Your task to perform on an android device: Open Google Chrome and open the bookmarks view Image 0: 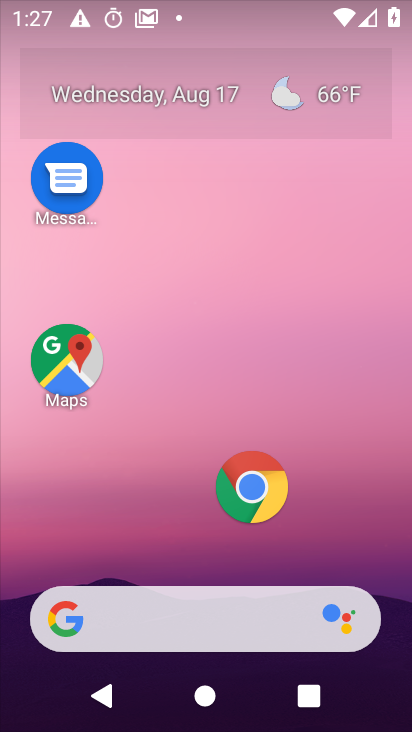
Step 0: press home button
Your task to perform on an android device: Open Google Chrome and open the bookmarks view Image 1: 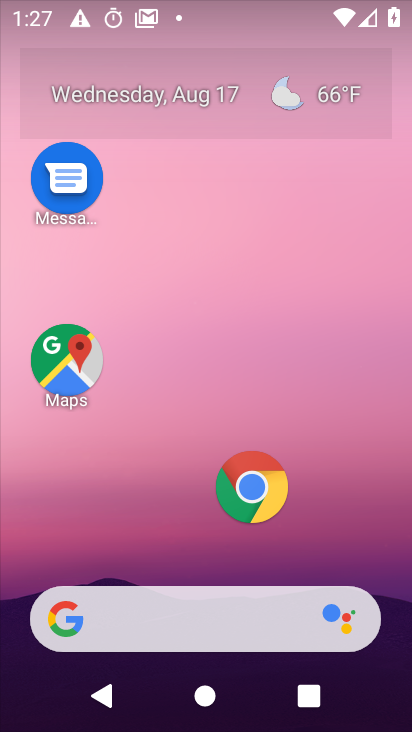
Step 1: click (251, 486)
Your task to perform on an android device: Open Google Chrome and open the bookmarks view Image 2: 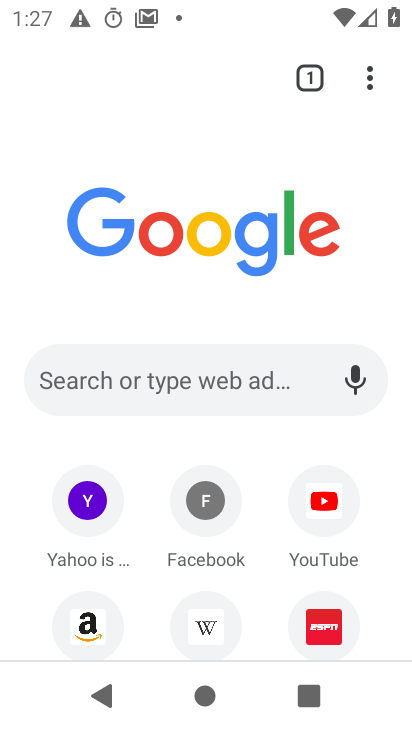
Step 2: task complete